Your task to perform on an android device: all mails in gmail Image 0: 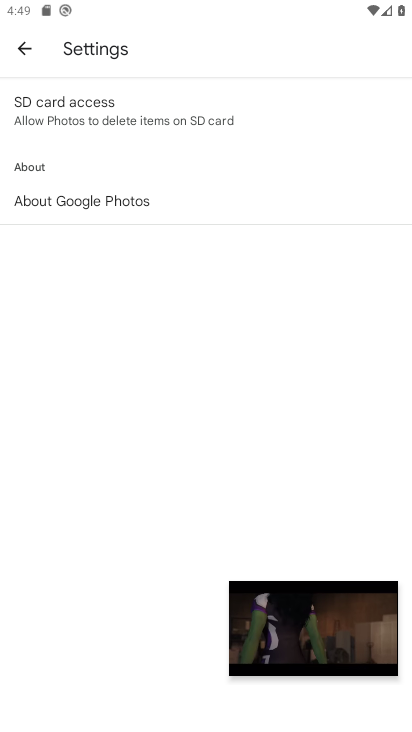
Step 0: click (389, 593)
Your task to perform on an android device: all mails in gmail Image 1: 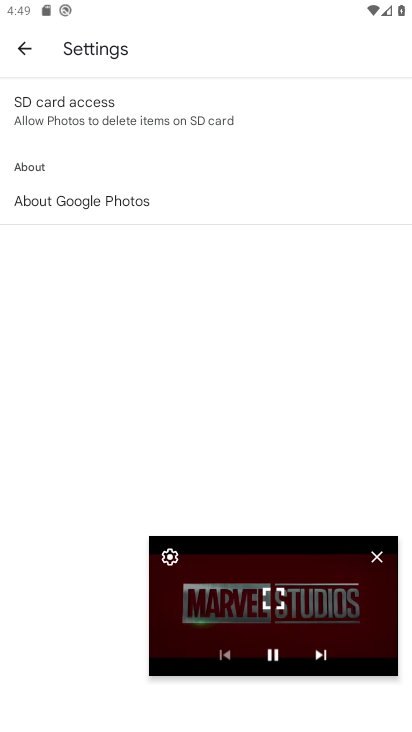
Step 1: click (379, 551)
Your task to perform on an android device: all mails in gmail Image 2: 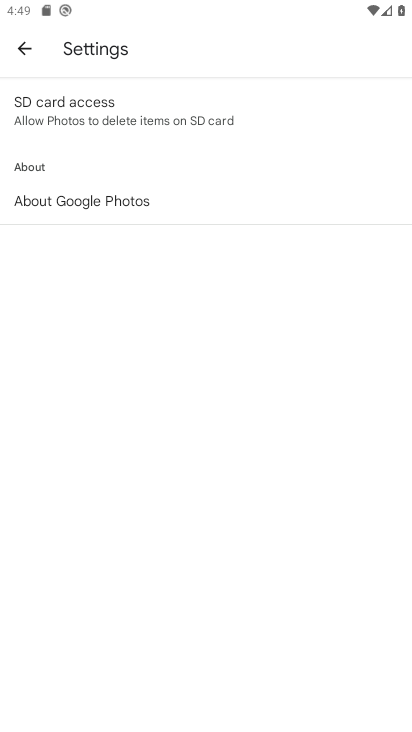
Step 2: press back button
Your task to perform on an android device: all mails in gmail Image 3: 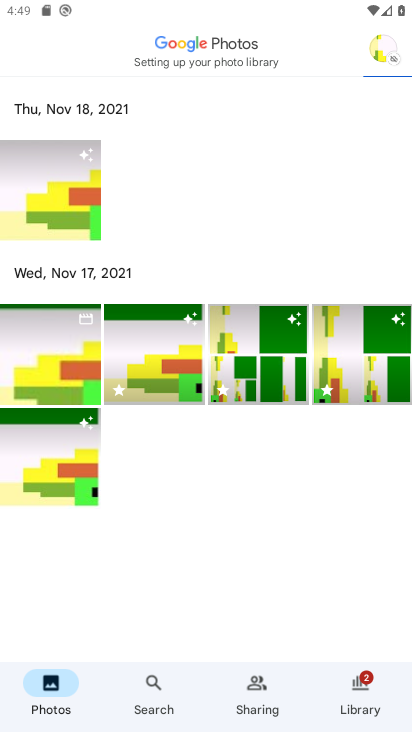
Step 3: press back button
Your task to perform on an android device: all mails in gmail Image 4: 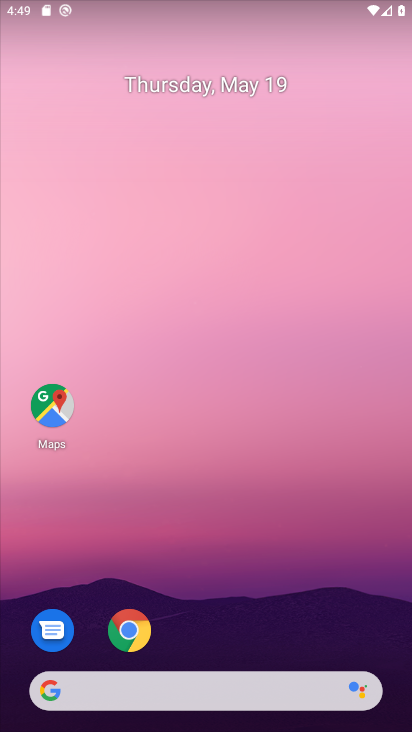
Step 4: drag from (283, 557) to (253, 38)
Your task to perform on an android device: all mails in gmail Image 5: 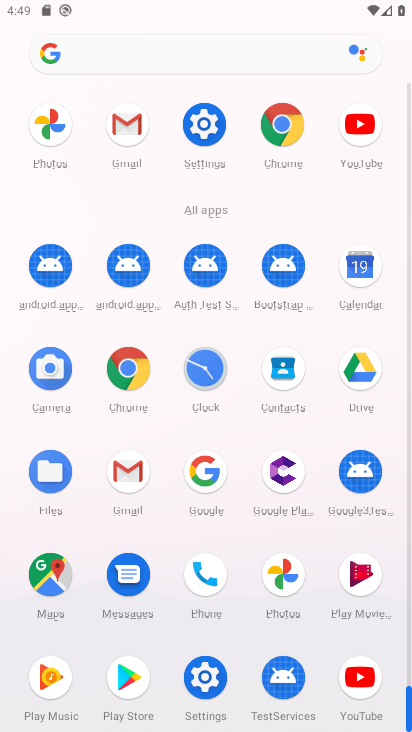
Step 5: drag from (15, 502) to (24, 226)
Your task to perform on an android device: all mails in gmail Image 6: 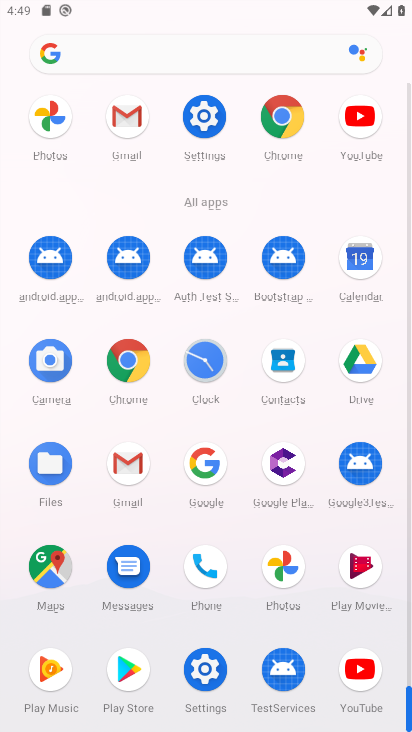
Step 6: click (125, 457)
Your task to perform on an android device: all mails in gmail Image 7: 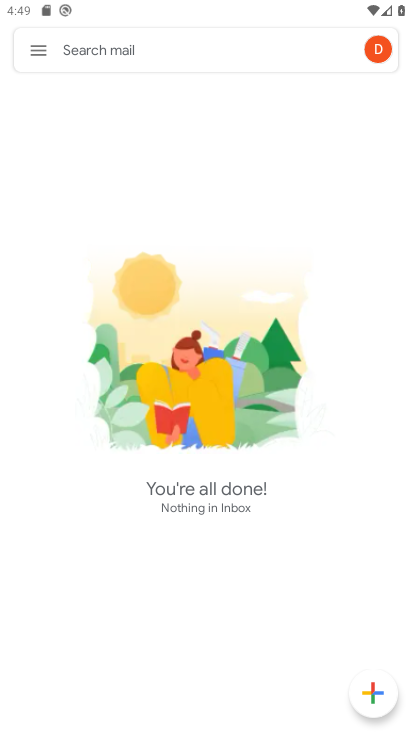
Step 7: click (39, 43)
Your task to perform on an android device: all mails in gmail Image 8: 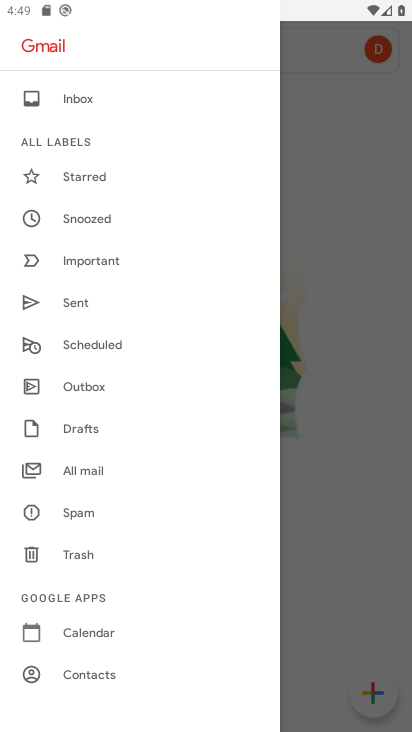
Step 8: click (91, 476)
Your task to perform on an android device: all mails in gmail Image 9: 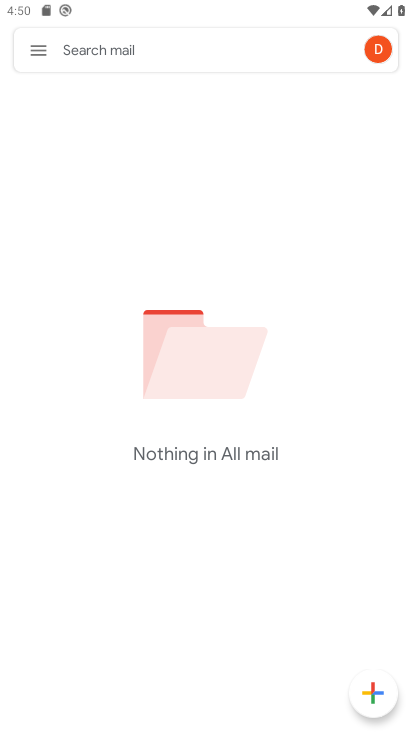
Step 9: task complete